Your task to perform on an android device: change timer sound Image 0: 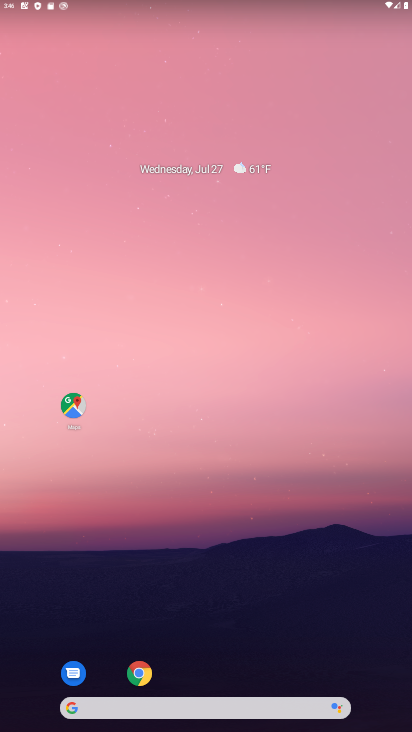
Step 0: click (212, 629)
Your task to perform on an android device: change timer sound Image 1: 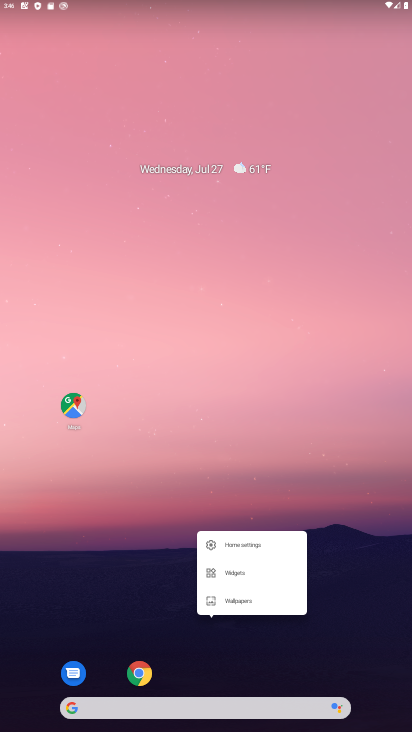
Step 1: drag from (389, 626) to (321, 40)
Your task to perform on an android device: change timer sound Image 2: 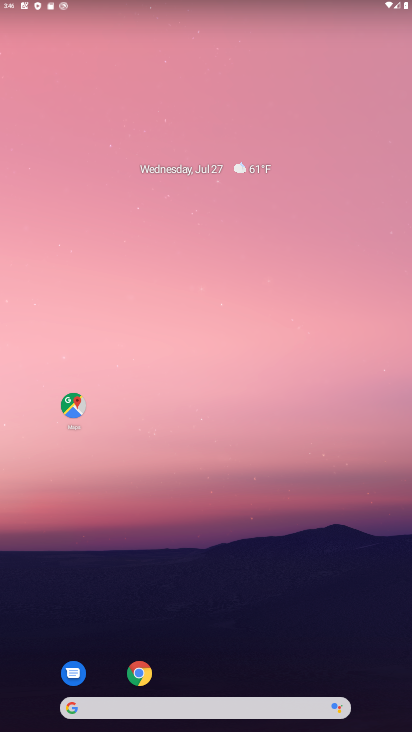
Step 2: drag from (313, 677) to (294, 139)
Your task to perform on an android device: change timer sound Image 3: 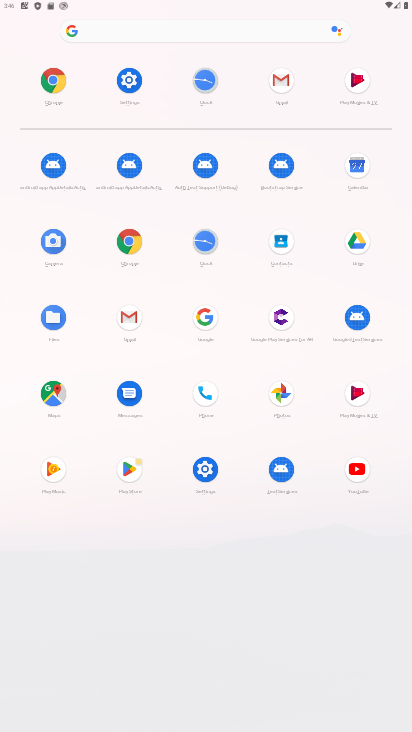
Step 3: click (205, 250)
Your task to perform on an android device: change timer sound Image 4: 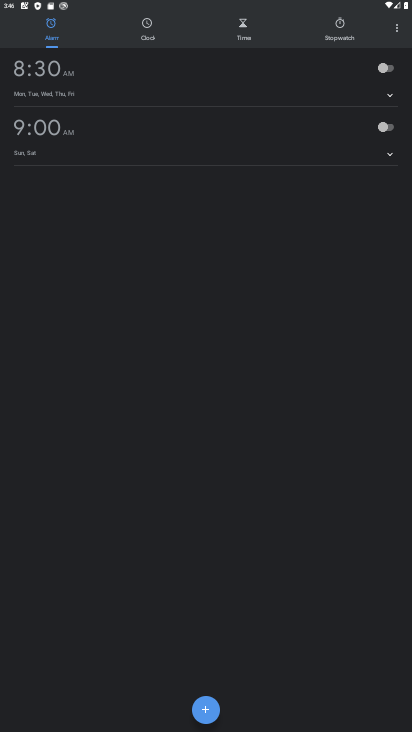
Step 4: click (405, 34)
Your task to perform on an android device: change timer sound Image 5: 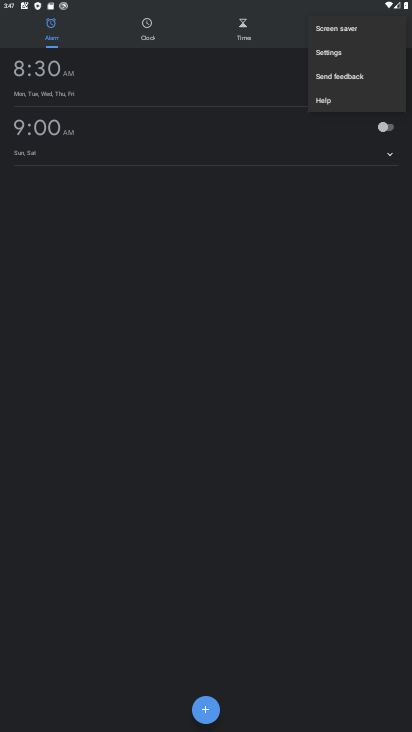
Step 5: click (338, 58)
Your task to perform on an android device: change timer sound Image 6: 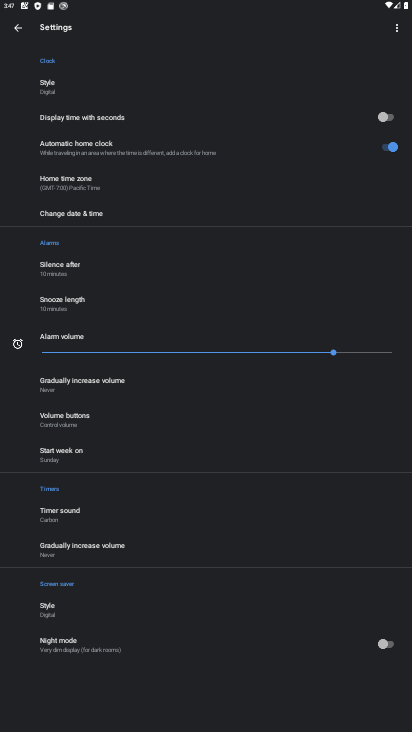
Step 6: click (105, 514)
Your task to perform on an android device: change timer sound Image 7: 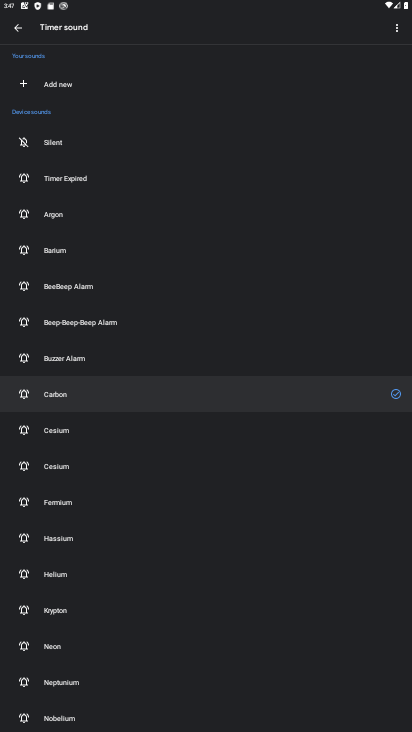
Step 7: click (45, 504)
Your task to perform on an android device: change timer sound Image 8: 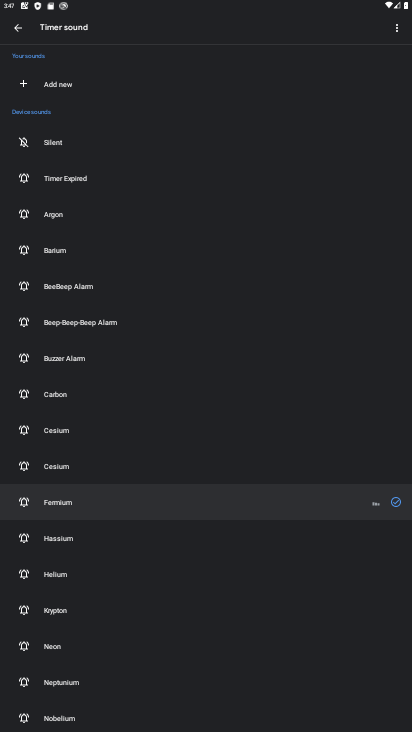
Step 8: task complete